Your task to perform on an android device: turn on wifi Image 0: 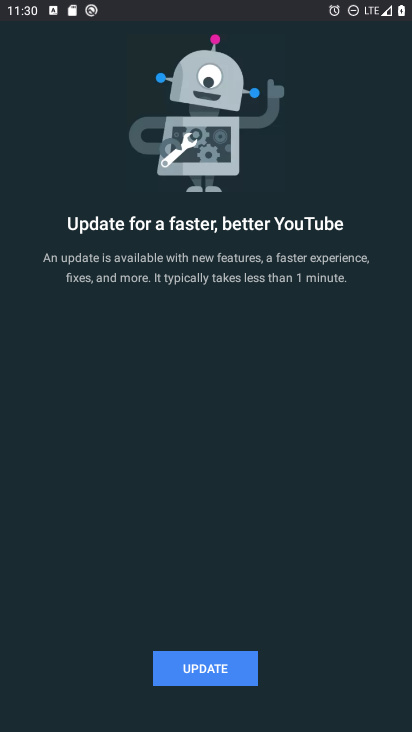
Step 0: press home button
Your task to perform on an android device: turn on wifi Image 1: 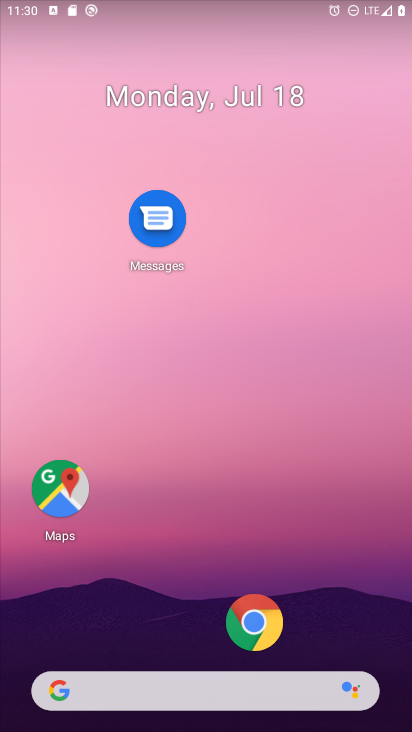
Step 1: drag from (199, 653) to (217, 160)
Your task to perform on an android device: turn on wifi Image 2: 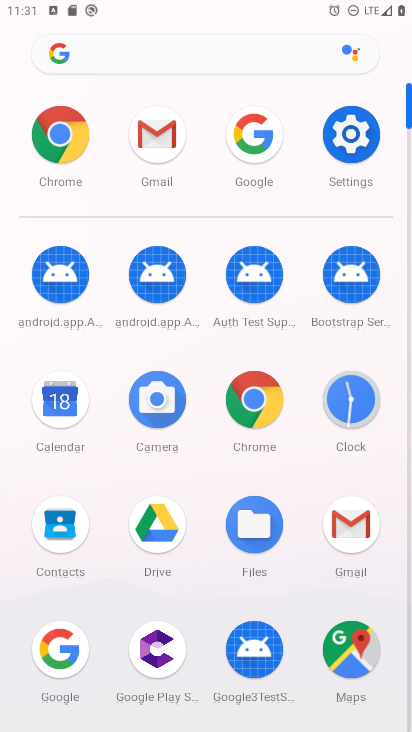
Step 2: click (373, 153)
Your task to perform on an android device: turn on wifi Image 3: 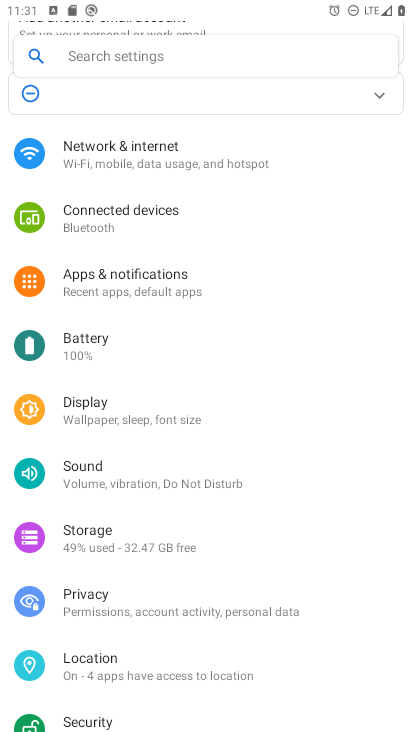
Step 3: click (147, 165)
Your task to perform on an android device: turn on wifi Image 4: 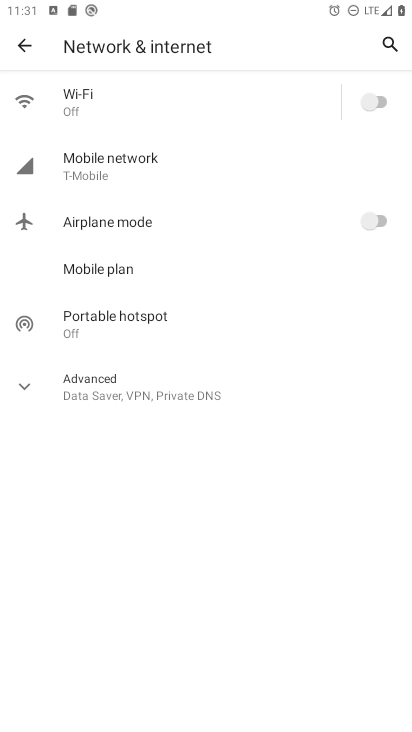
Step 4: click (388, 110)
Your task to perform on an android device: turn on wifi Image 5: 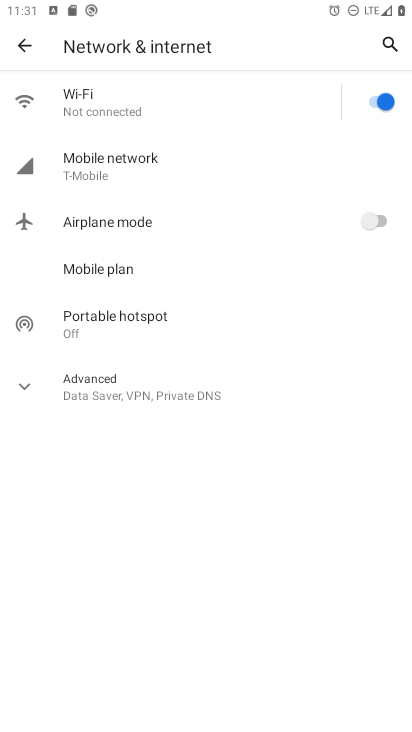
Step 5: task complete